Your task to perform on an android device: turn on improve location accuracy Image 0: 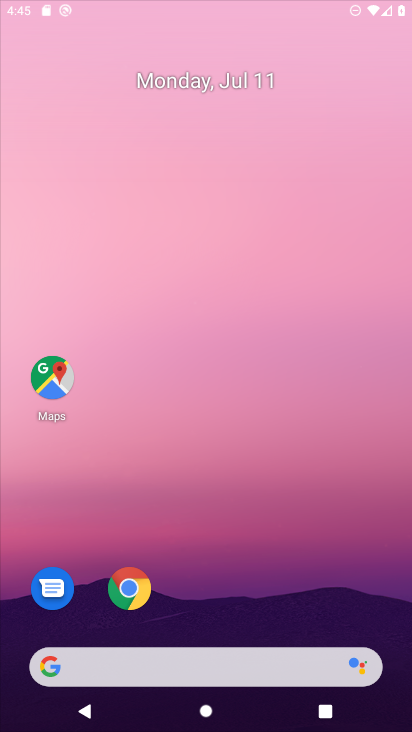
Step 0: press home button
Your task to perform on an android device: turn on improve location accuracy Image 1: 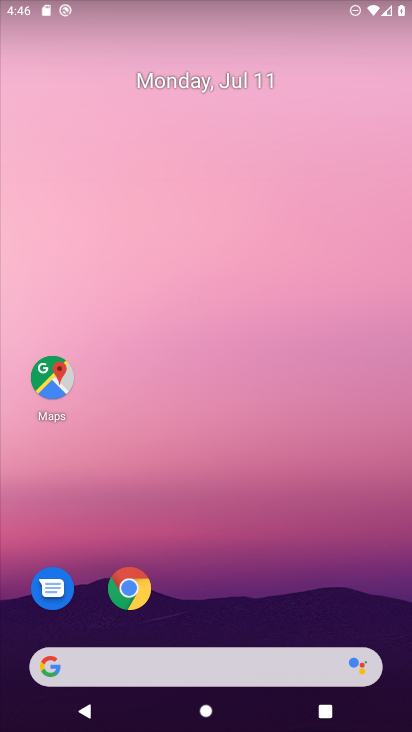
Step 1: drag from (215, 615) to (241, 79)
Your task to perform on an android device: turn on improve location accuracy Image 2: 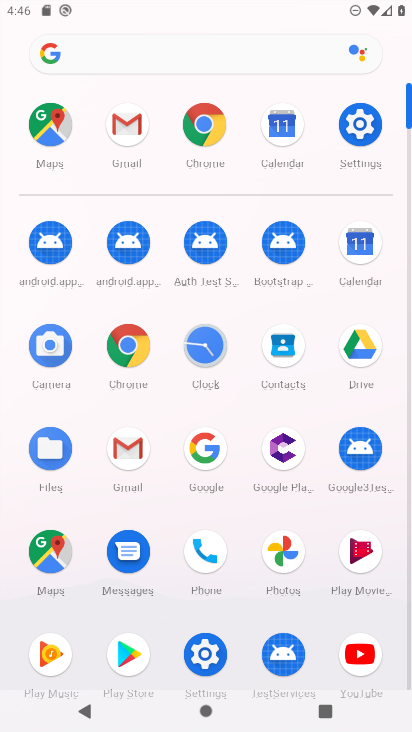
Step 2: click (362, 113)
Your task to perform on an android device: turn on improve location accuracy Image 3: 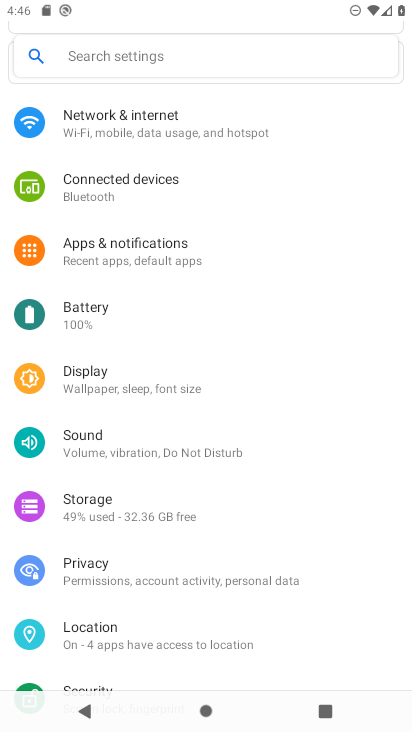
Step 3: click (96, 636)
Your task to perform on an android device: turn on improve location accuracy Image 4: 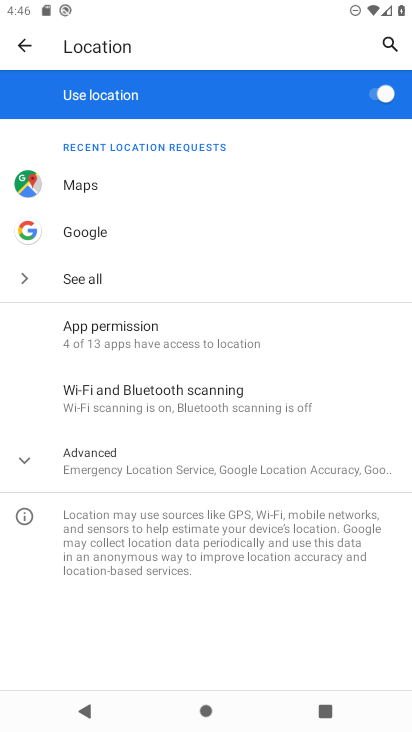
Step 4: click (82, 460)
Your task to perform on an android device: turn on improve location accuracy Image 5: 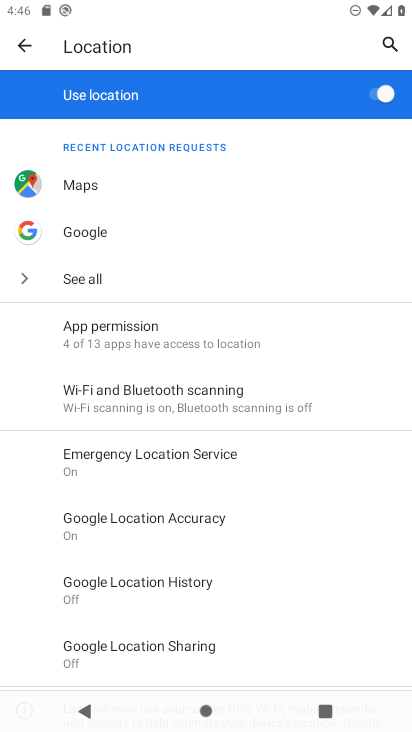
Step 5: click (176, 519)
Your task to perform on an android device: turn on improve location accuracy Image 6: 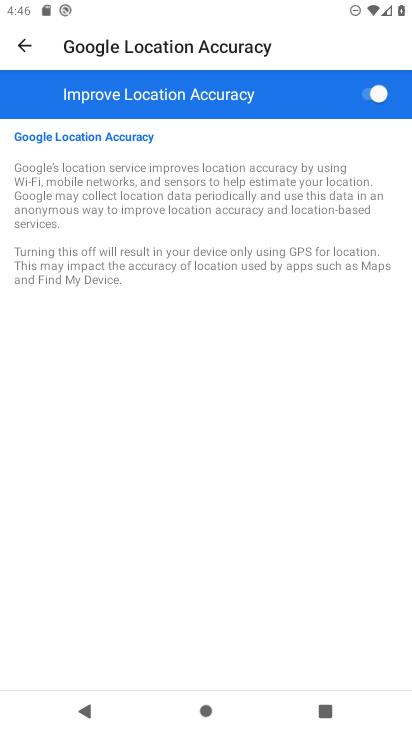
Step 6: press home button
Your task to perform on an android device: turn on improve location accuracy Image 7: 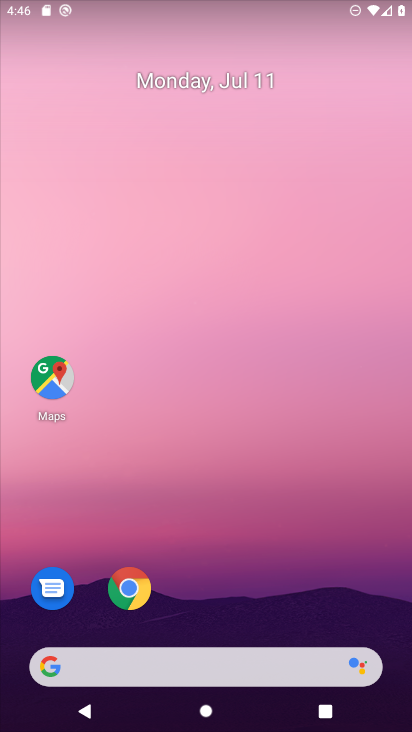
Step 7: drag from (224, 625) to (243, 79)
Your task to perform on an android device: turn on improve location accuracy Image 8: 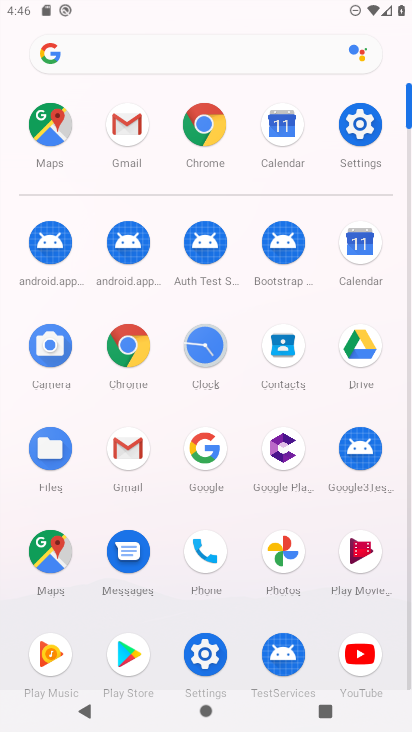
Step 8: click (355, 126)
Your task to perform on an android device: turn on improve location accuracy Image 9: 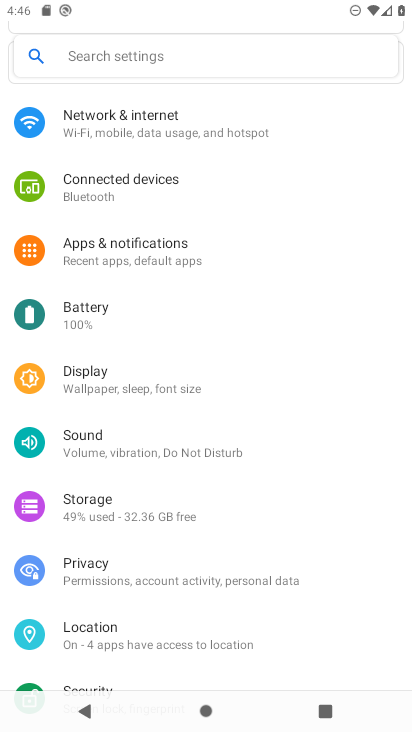
Step 9: click (91, 629)
Your task to perform on an android device: turn on improve location accuracy Image 10: 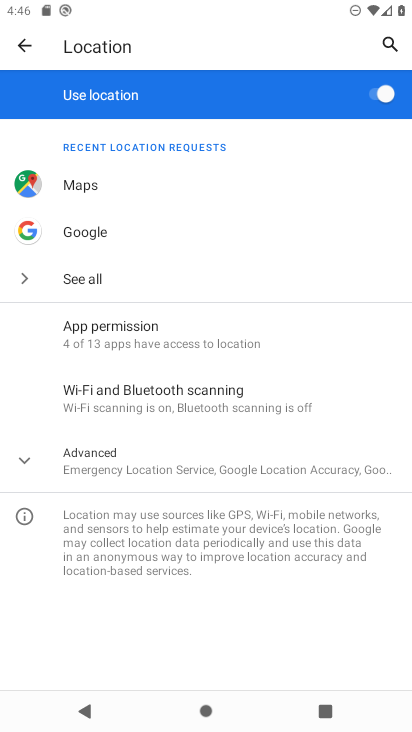
Step 10: click (74, 457)
Your task to perform on an android device: turn on improve location accuracy Image 11: 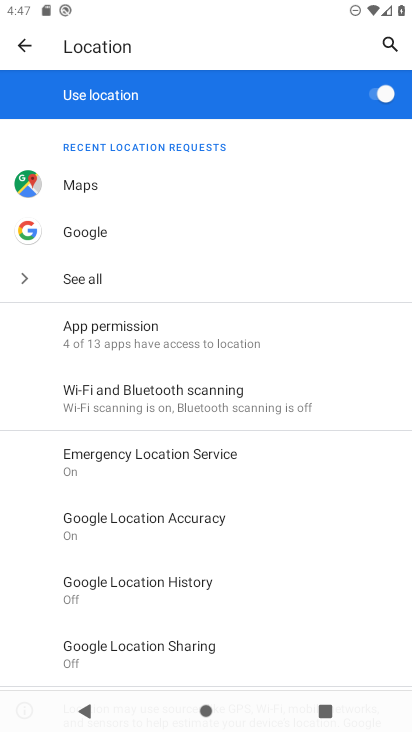
Step 11: click (148, 522)
Your task to perform on an android device: turn on improve location accuracy Image 12: 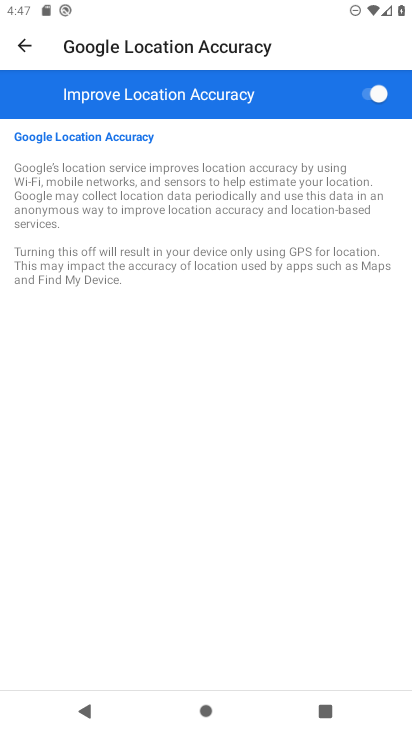
Step 12: task complete